Your task to perform on an android device: Open my contact list Image 0: 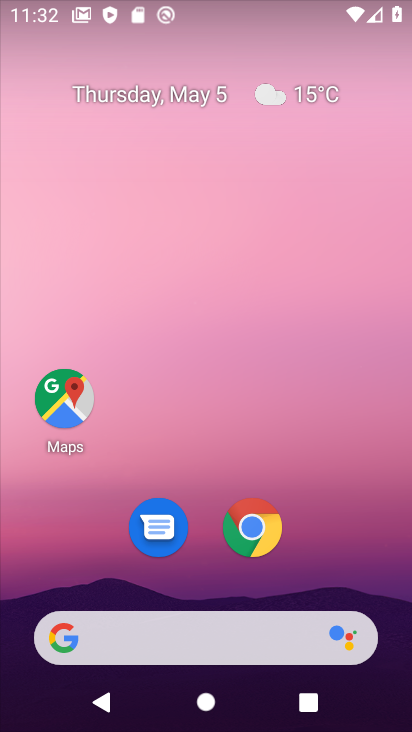
Step 0: drag from (69, 623) to (172, 86)
Your task to perform on an android device: Open my contact list Image 1: 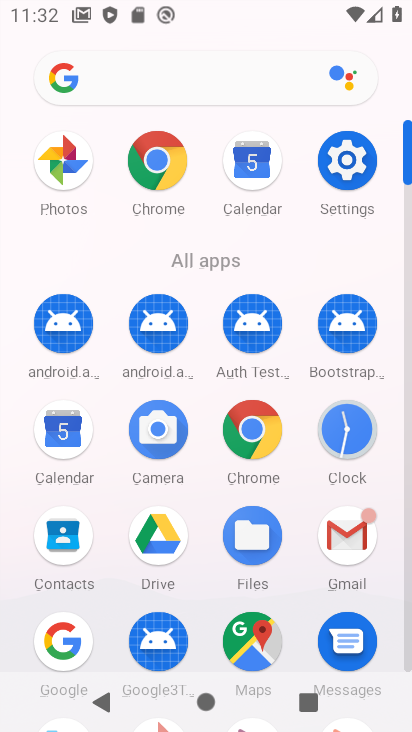
Step 1: drag from (129, 583) to (201, 238)
Your task to perform on an android device: Open my contact list Image 2: 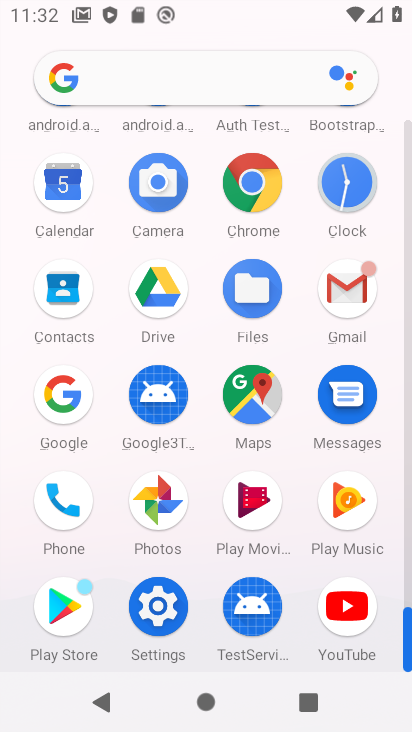
Step 2: click (73, 289)
Your task to perform on an android device: Open my contact list Image 3: 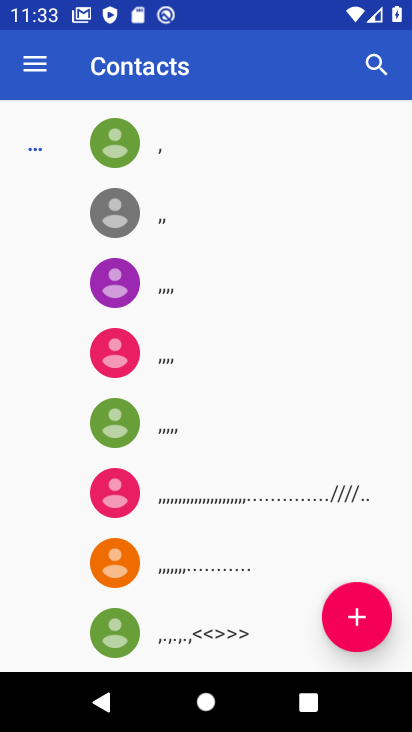
Step 3: task complete